Your task to perform on an android device: Open calendar and show me the first week of next month Image 0: 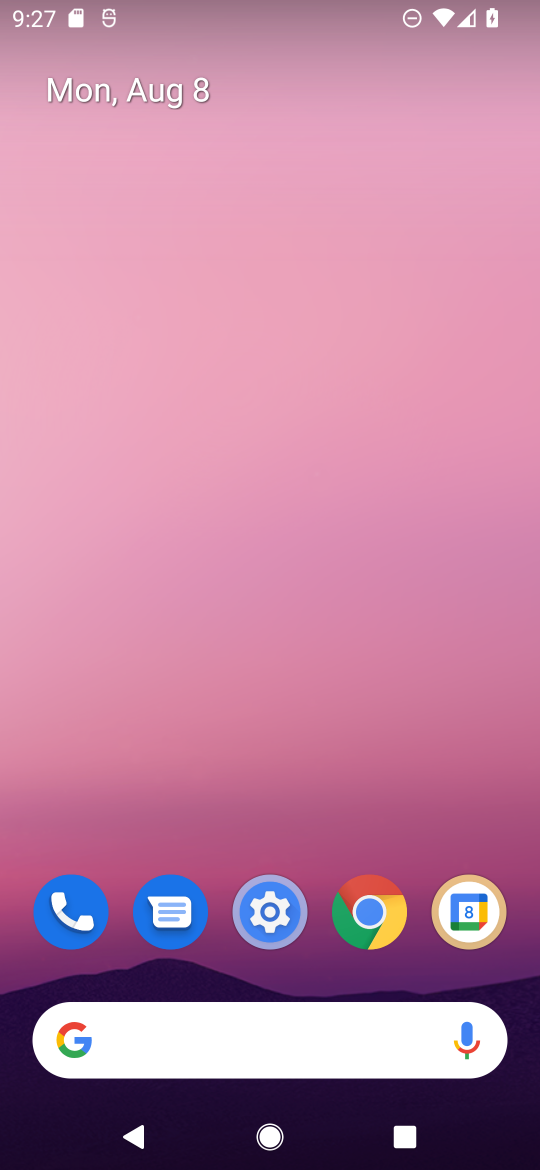
Step 0: drag from (505, 971) to (273, 44)
Your task to perform on an android device: Open calendar and show me the first week of next month Image 1: 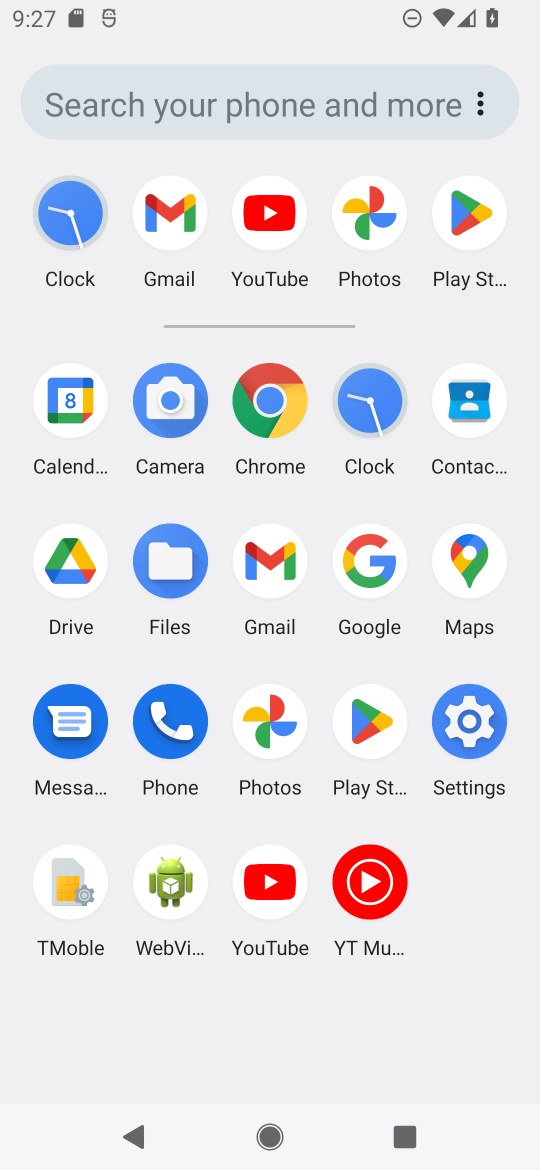
Step 1: click (24, 353)
Your task to perform on an android device: Open calendar and show me the first week of next month Image 2: 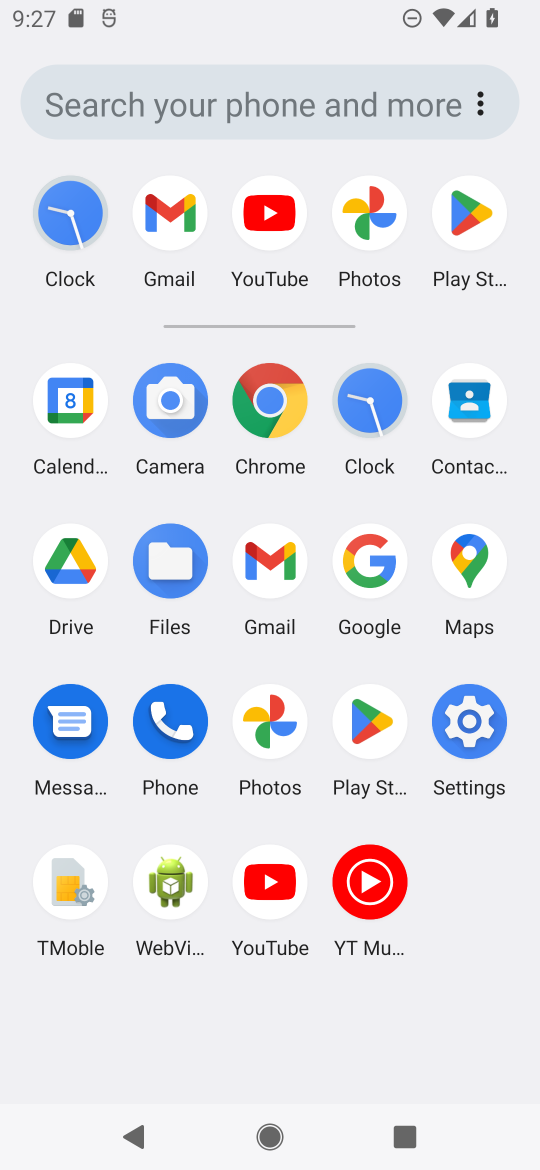
Step 2: click (70, 394)
Your task to perform on an android device: Open calendar and show me the first week of next month Image 3: 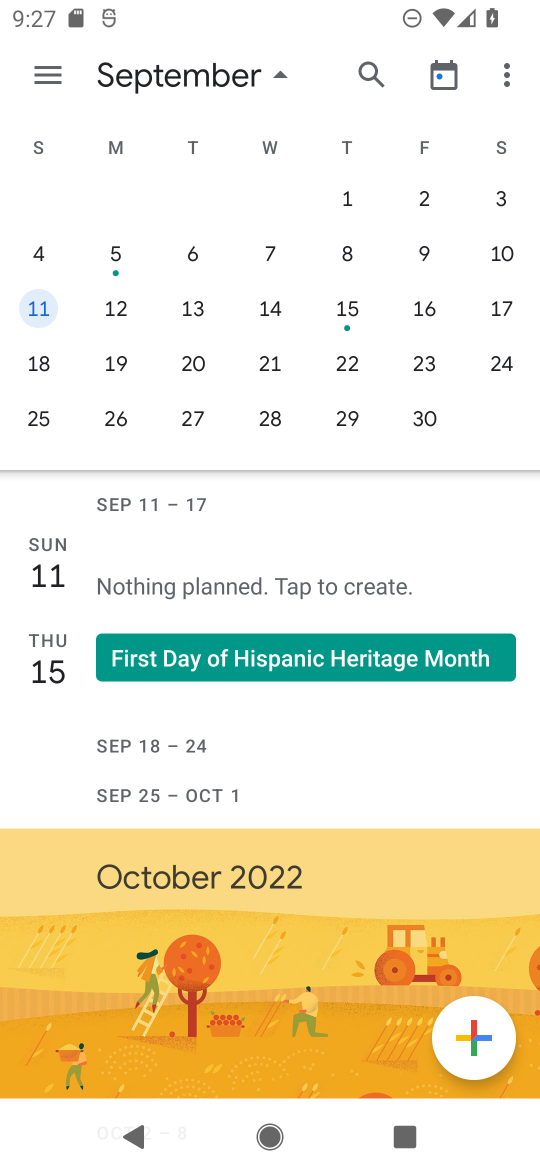
Step 3: drag from (469, 227) to (0, 260)
Your task to perform on an android device: Open calendar and show me the first week of next month Image 4: 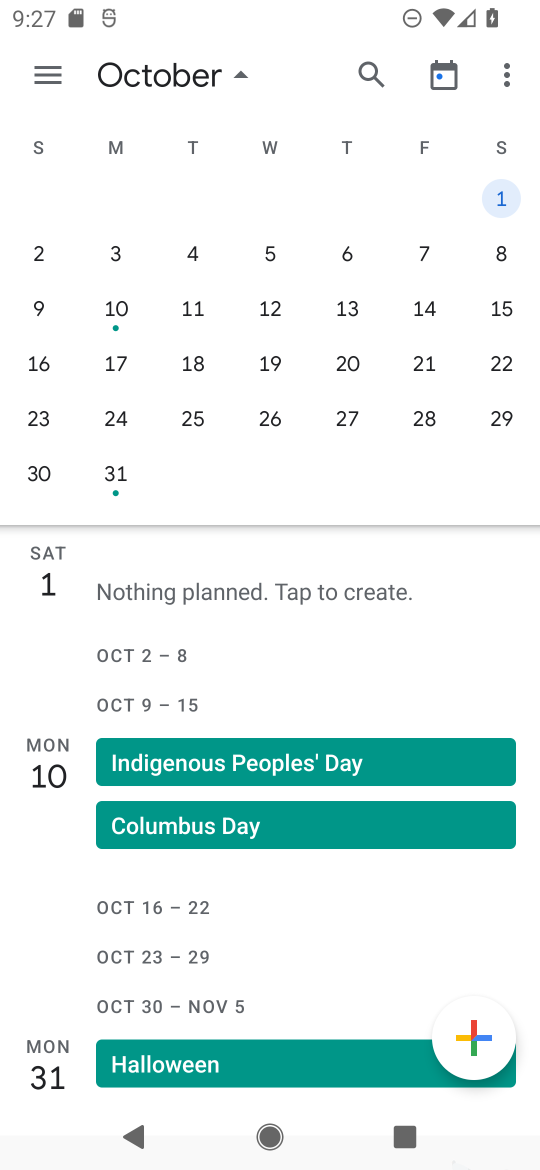
Step 4: click (39, 263)
Your task to perform on an android device: Open calendar and show me the first week of next month Image 5: 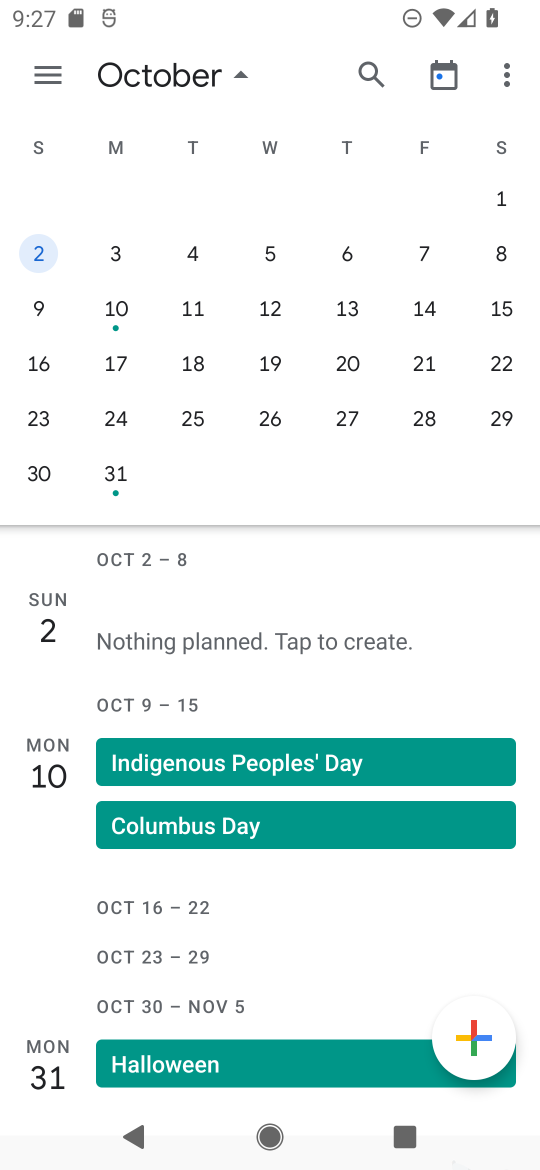
Step 5: task complete